Your task to perform on an android device: make emails show in primary in the gmail app Image 0: 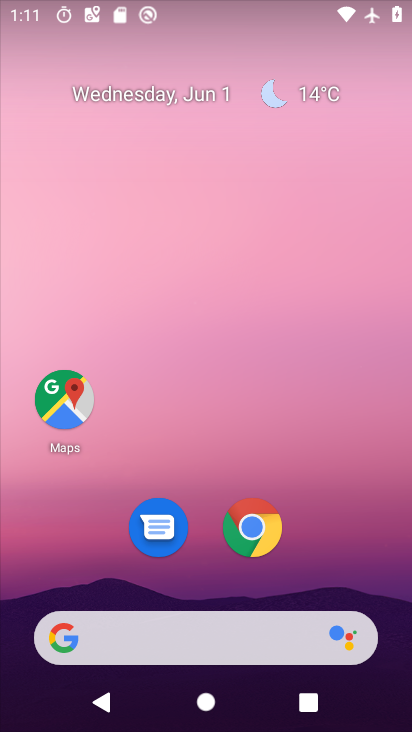
Step 0: drag from (331, 602) to (331, 0)
Your task to perform on an android device: make emails show in primary in the gmail app Image 1: 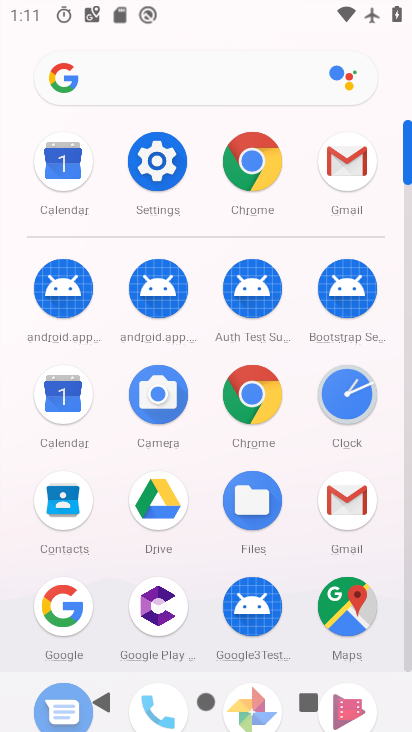
Step 1: click (352, 168)
Your task to perform on an android device: make emails show in primary in the gmail app Image 2: 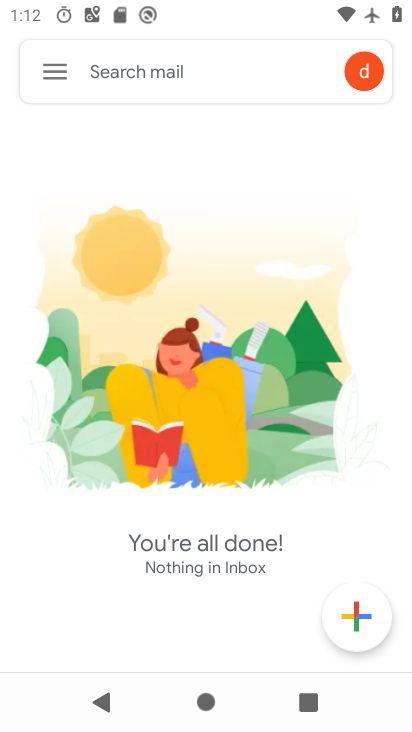
Step 2: click (42, 70)
Your task to perform on an android device: make emails show in primary in the gmail app Image 3: 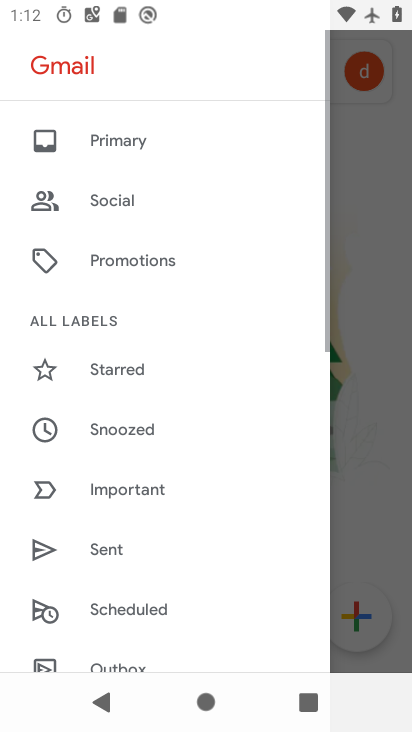
Step 3: drag from (168, 603) to (163, 24)
Your task to perform on an android device: make emails show in primary in the gmail app Image 4: 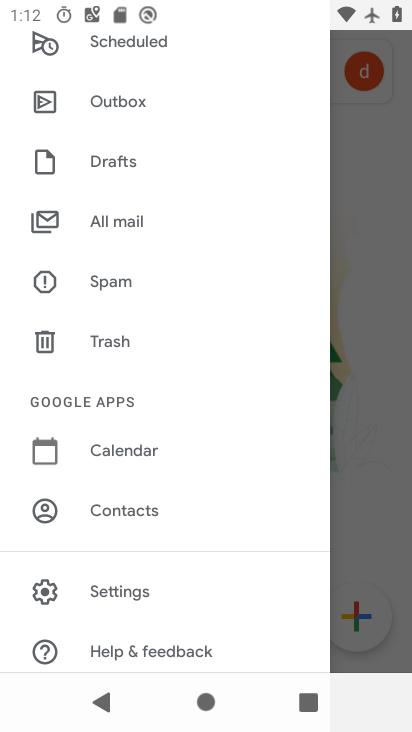
Step 4: click (94, 599)
Your task to perform on an android device: make emails show in primary in the gmail app Image 5: 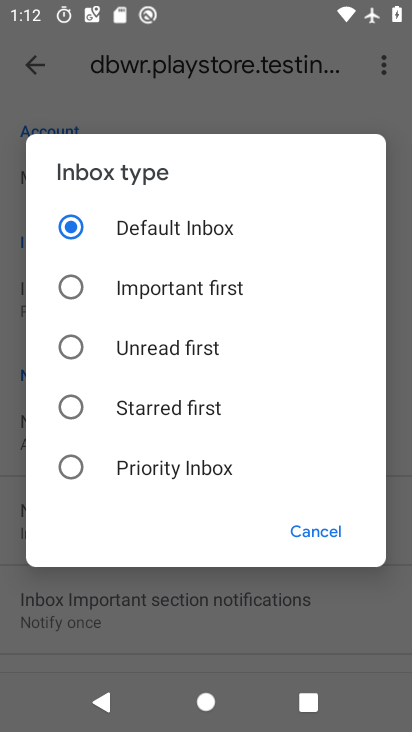
Step 5: click (324, 535)
Your task to perform on an android device: make emails show in primary in the gmail app Image 6: 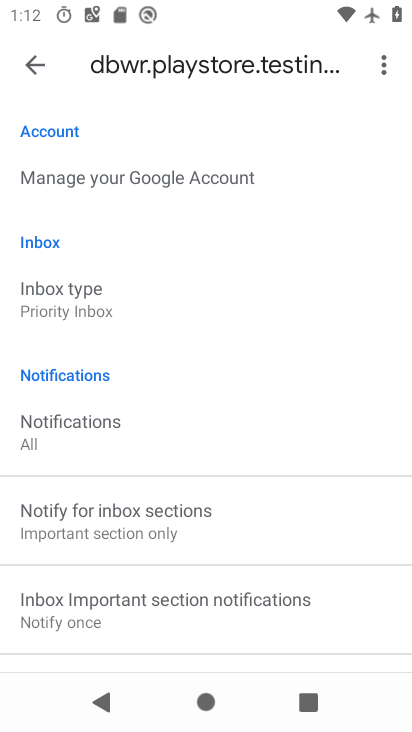
Step 6: task complete